Your task to perform on an android device: Open Google Image 0: 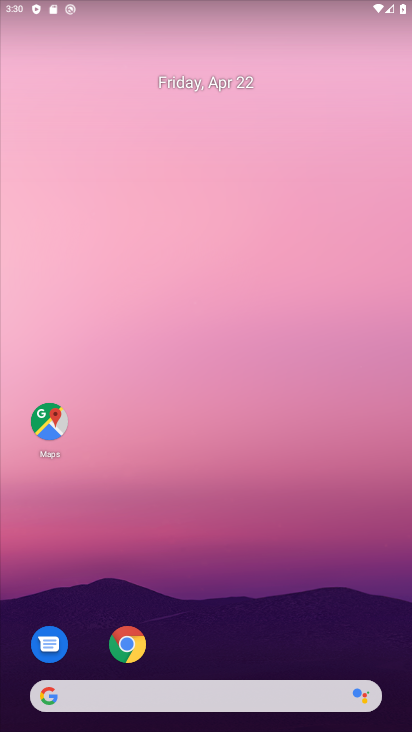
Step 0: drag from (187, 633) to (162, 4)
Your task to perform on an android device: Open Google Image 1: 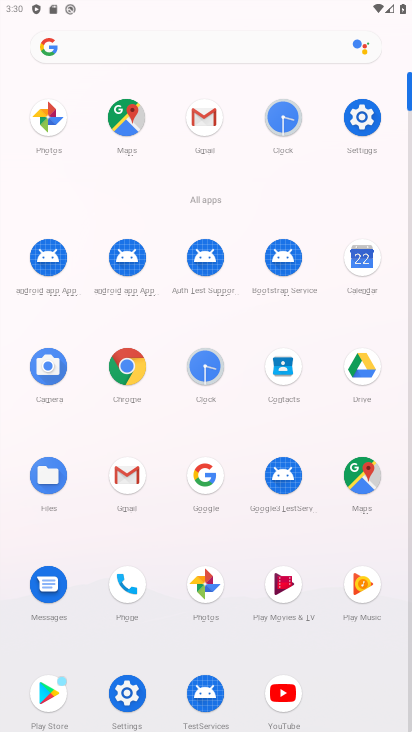
Step 1: click (207, 474)
Your task to perform on an android device: Open Google Image 2: 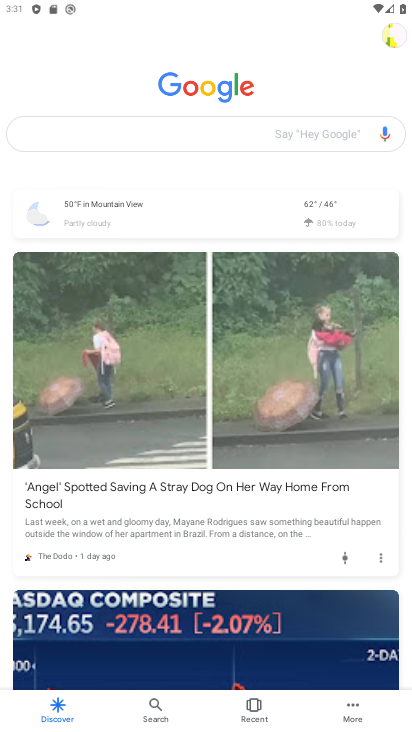
Step 2: task complete